Your task to perform on an android device: set the timer Image 0: 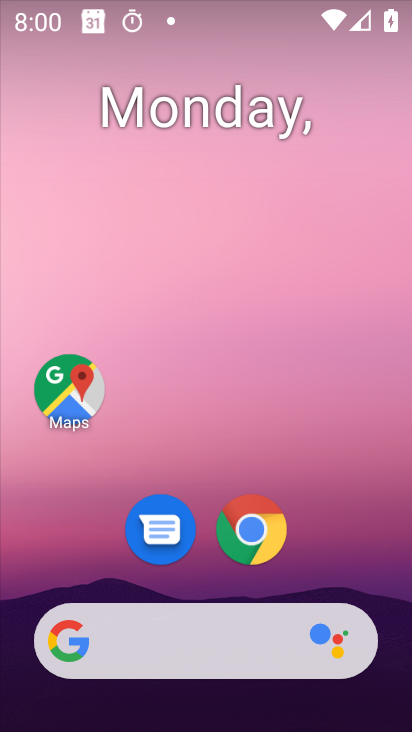
Step 0: drag from (73, 551) to (292, 185)
Your task to perform on an android device: set the timer Image 1: 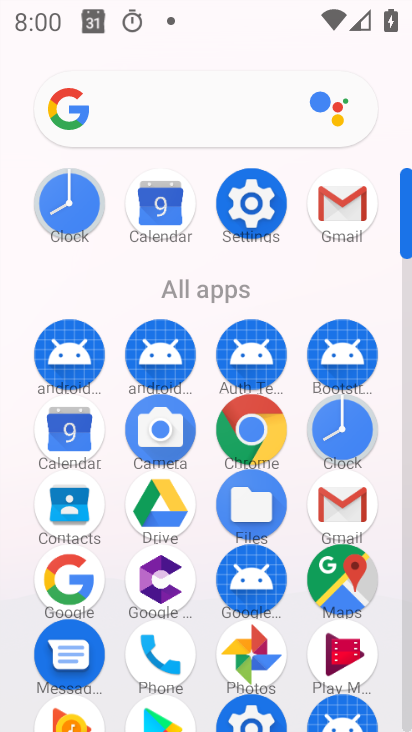
Step 1: click (339, 422)
Your task to perform on an android device: set the timer Image 2: 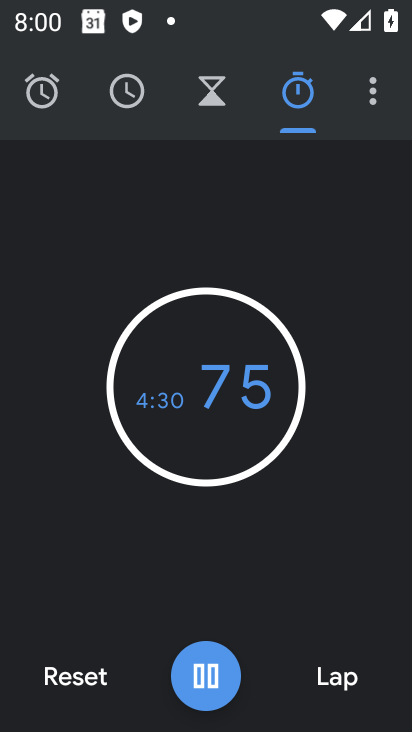
Step 2: click (218, 100)
Your task to perform on an android device: set the timer Image 3: 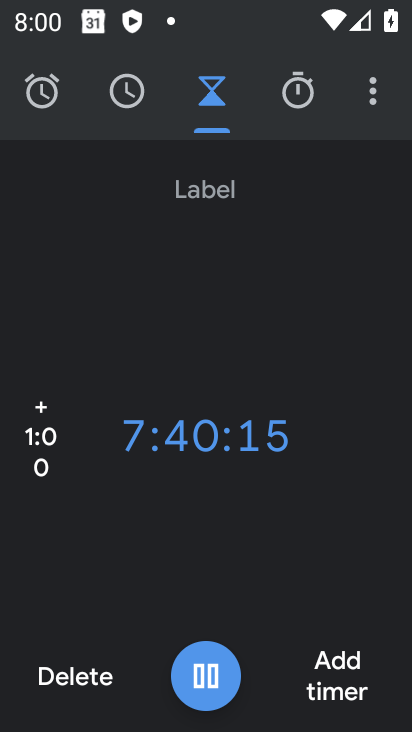
Step 3: click (51, 683)
Your task to perform on an android device: set the timer Image 4: 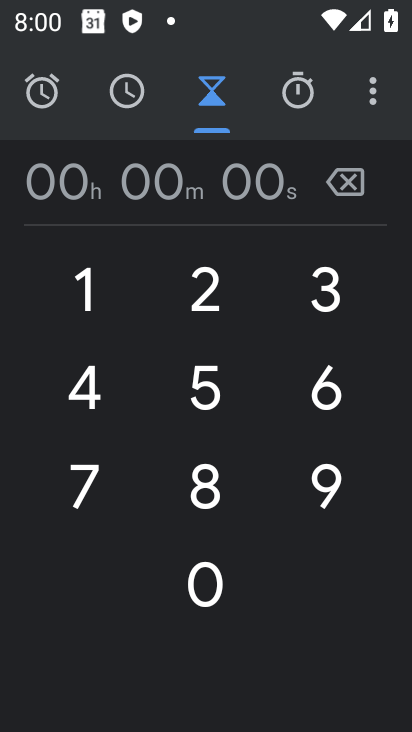
Step 4: click (202, 561)
Your task to perform on an android device: set the timer Image 5: 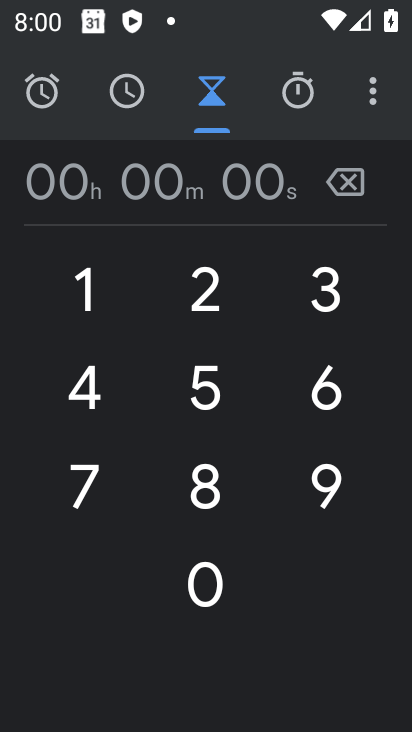
Step 5: click (212, 484)
Your task to perform on an android device: set the timer Image 6: 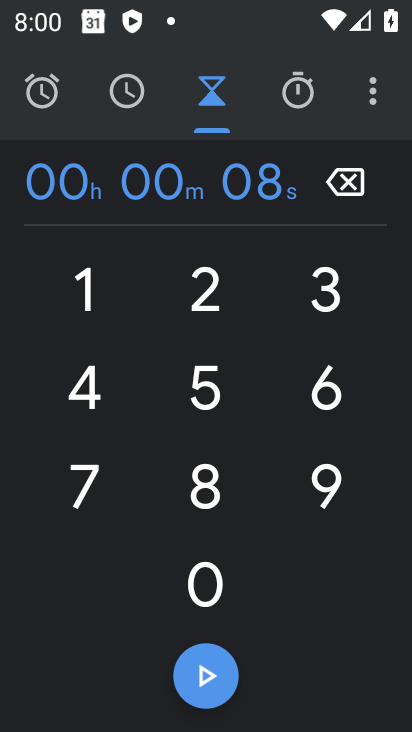
Step 6: click (97, 390)
Your task to perform on an android device: set the timer Image 7: 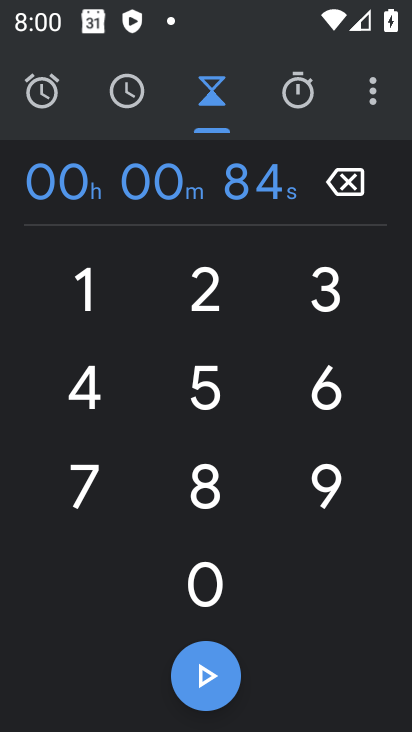
Step 7: click (185, 372)
Your task to perform on an android device: set the timer Image 8: 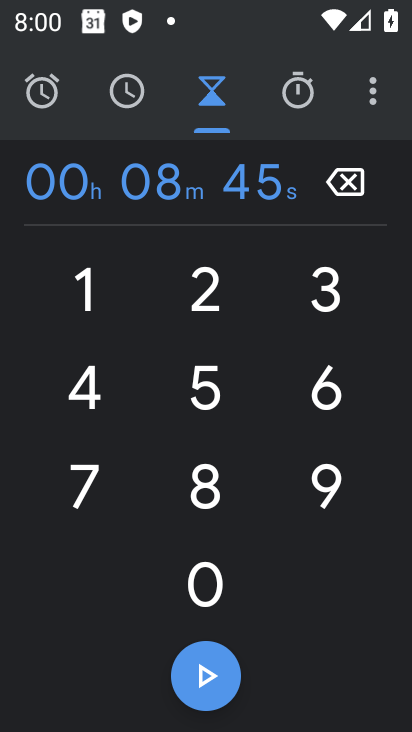
Step 8: click (348, 410)
Your task to perform on an android device: set the timer Image 9: 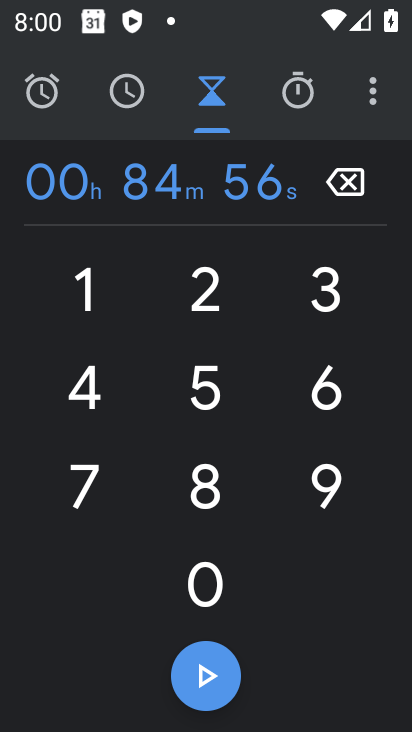
Step 9: click (232, 553)
Your task to perform on an android device: set the timer Image 10: 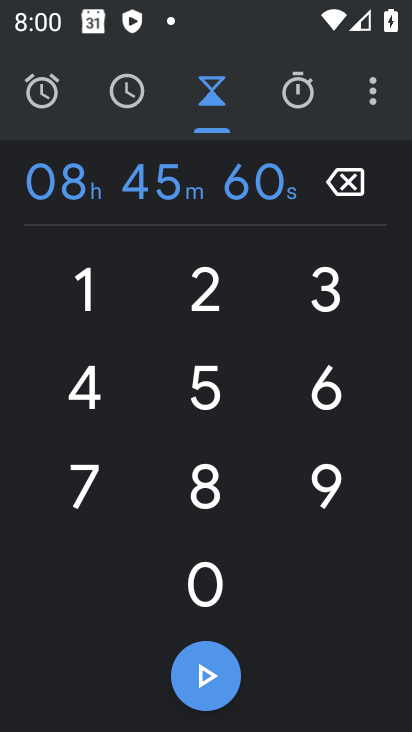
Step 10: click (200, 694)
Your task to perform on an android device: set the timer Image 11: 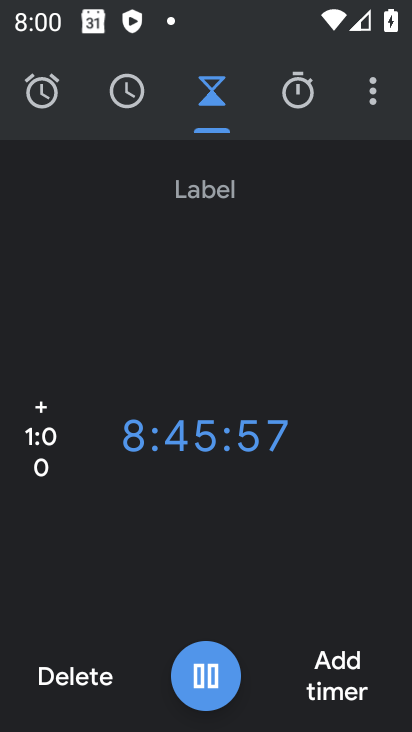
Step 11: task complete